Your task to perform on an android device: Find coffee shops on Maps Image 0: 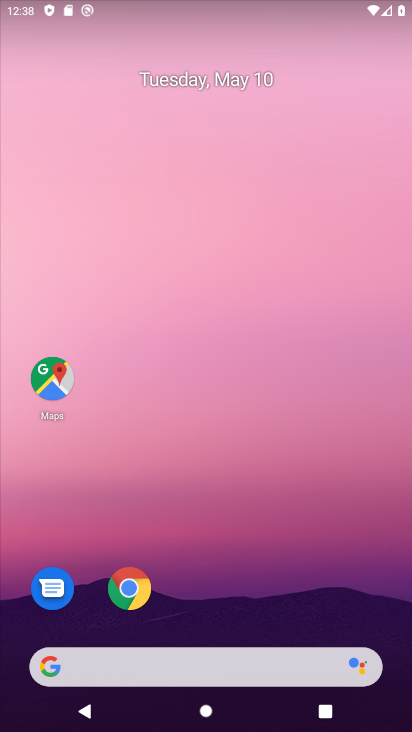
Step 0: click (57, 371)
Your task to perform on an android device: Find coffee shops on Maps Image 1: 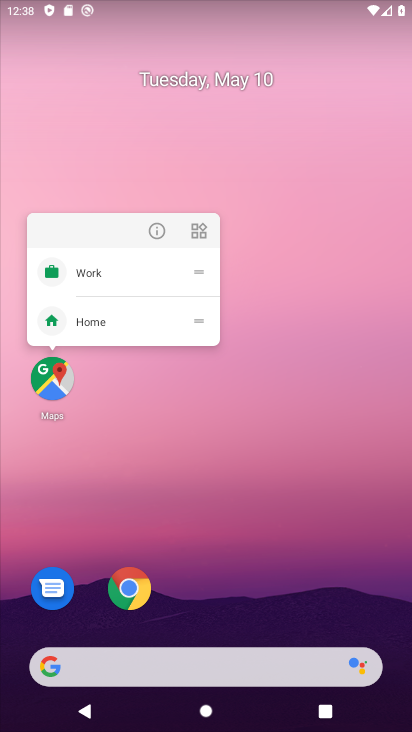
Step 1: click (66, 387)
Your task to perform on an android device: Find coffee shops on Maps Image 2: 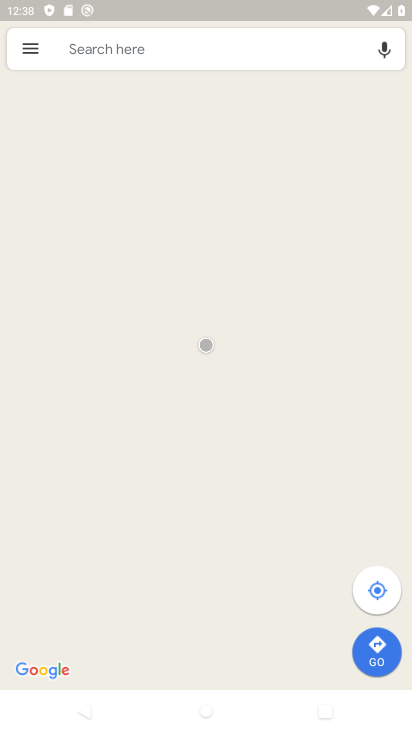
Step 2: click (167, 57)
Your task to perform on an android device: Find coffee shops on Maps Image 3: 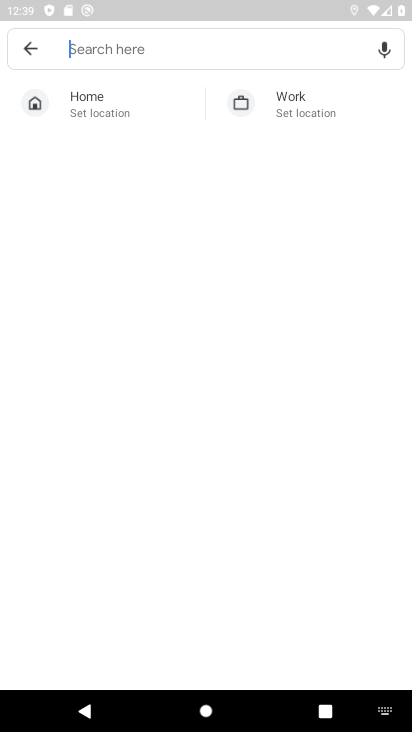
Step 3: type "coffee shops"
Your task to perform on an android device: Find coffee shops on Maps Image 4: 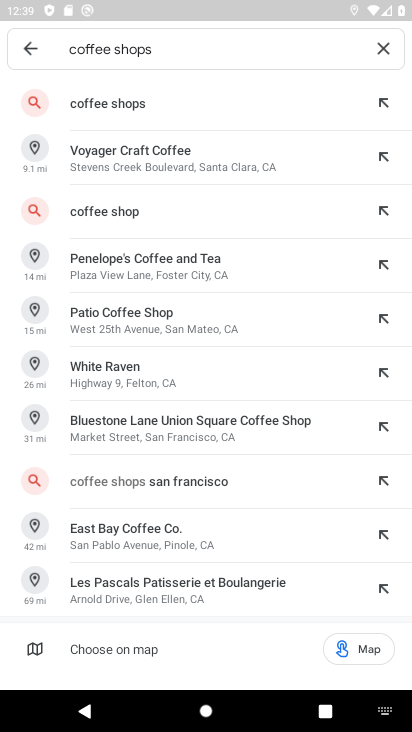
Step 4: click (203, 115)
Your task to perform on an android device: Find coffee shops on Maps Image 5: 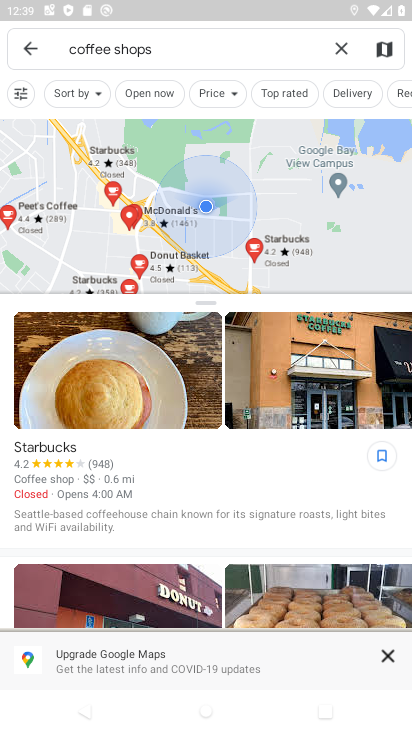
Step 5: task complete